Your task to perform on an android device: Open my contact list Image 0: 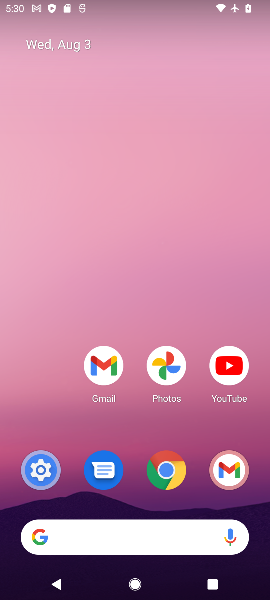
Step 0: drag from (59, 405) to (77, 53)
Your task to perform on an android device: Open my contact list Image 1: 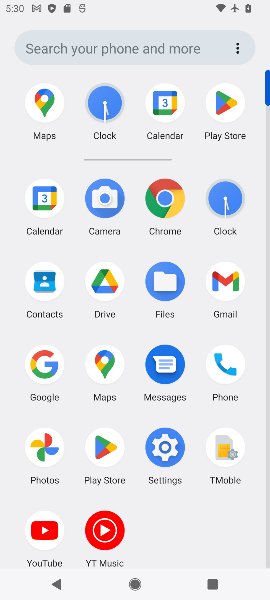
Step 1: click (45, 282)
Your task to perform on an android device: Open my contact list Image 2: 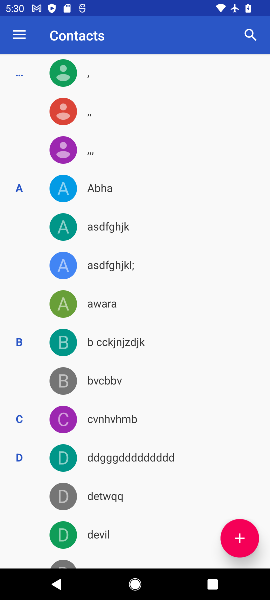
Step 2: task complete